Your task to perform on an android device: delete the emails in spam in the gmail app Image 0: 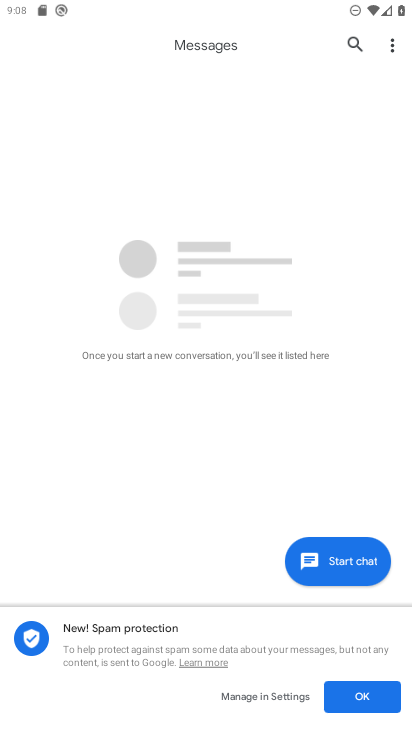
Step 0: press home button
Your task to perform on an android device: delete the emails in spam in the gmail app Image 1: 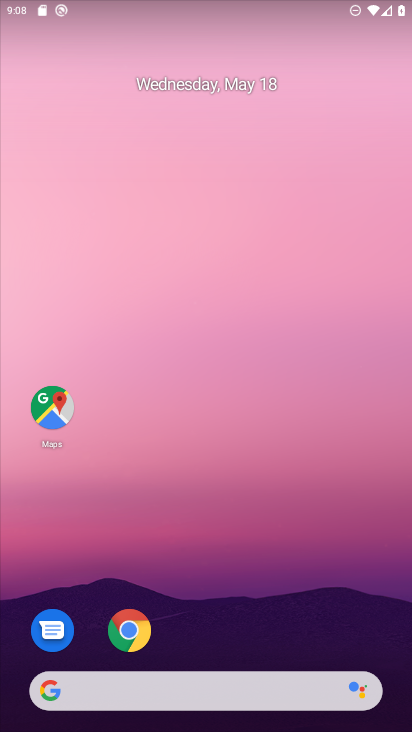
Step 1: drag from (266, 660) to (270, 66)
Your task to perform on an android device: delete the emails in spam in the gmail app Image 2: 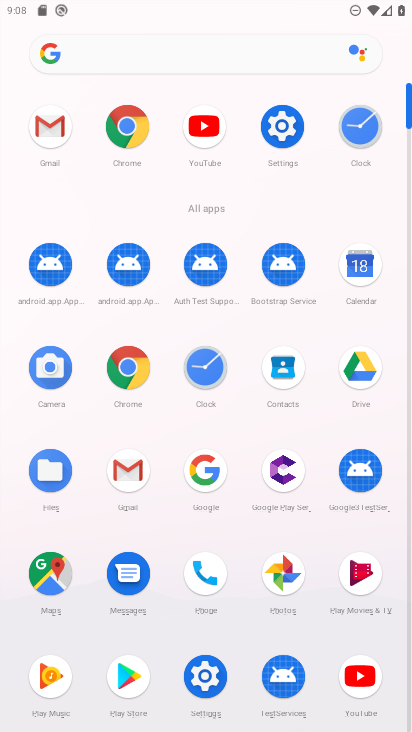
Step 2: click (134, 464)
Your task to perform on an android device: delete the emails in spam in the gmail app Image 3: 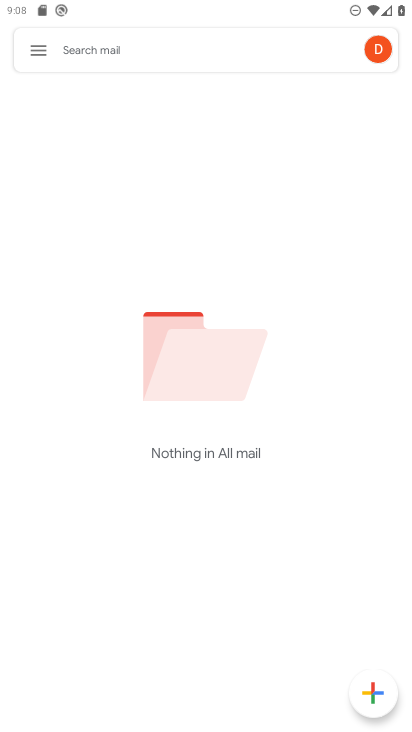
Step 3: click (33, 58)
Your task to perform on an android device: delete the emails in spam in the gmail app Image 4: 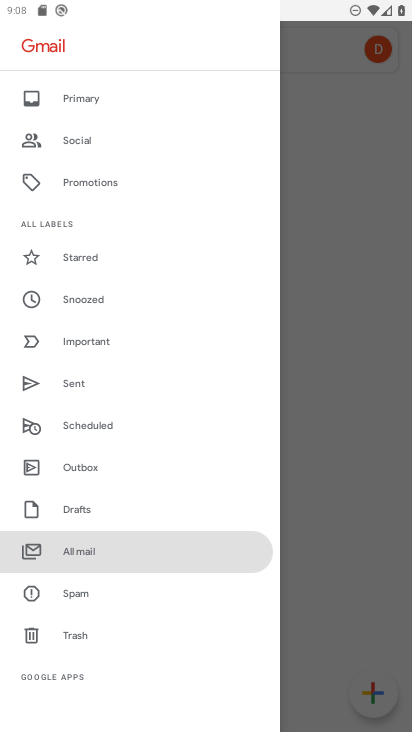
Step 4: click (116, 545)
Your task to perform on an android device: delete the emails in spam in the gmail app Image 5: 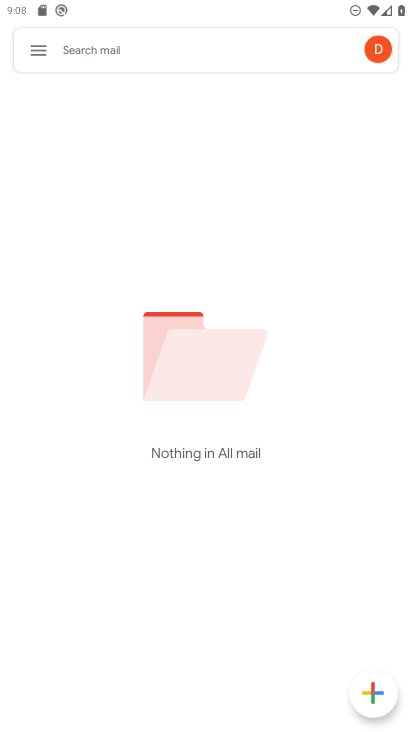
Step 5: task complete